Your task to perform on an android device: turn smart compose on in the gmail app Image 0: 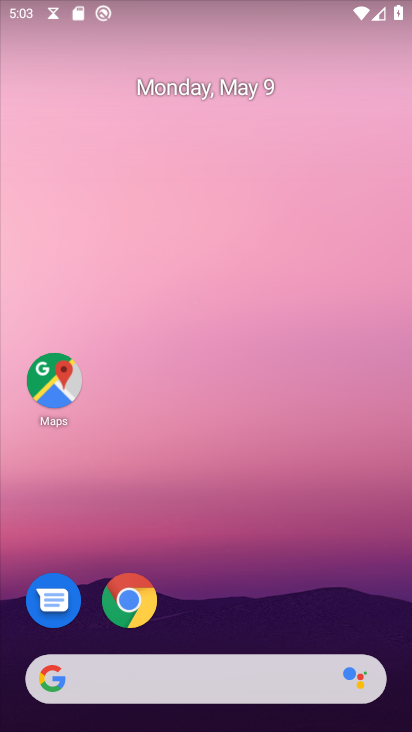
Step 0: drag from (283, 649) to (216, 0)
Your task to perform on an android device: turn smart compose on in the gmail app Image 1: 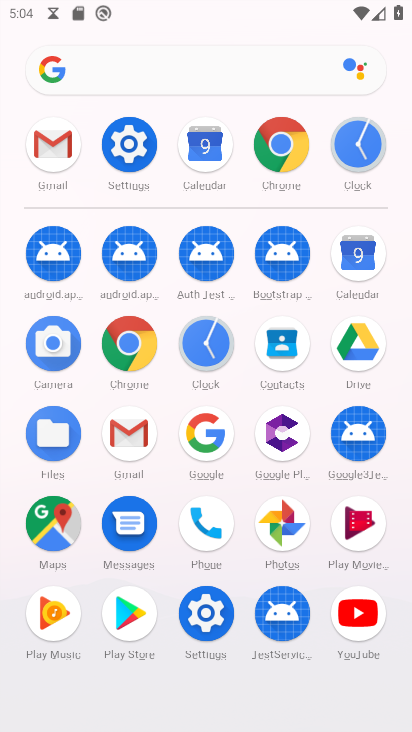
Step 1: click (117, 438)
Your task to perform on an android device: turn smart compose on in the gmail app Image 2: 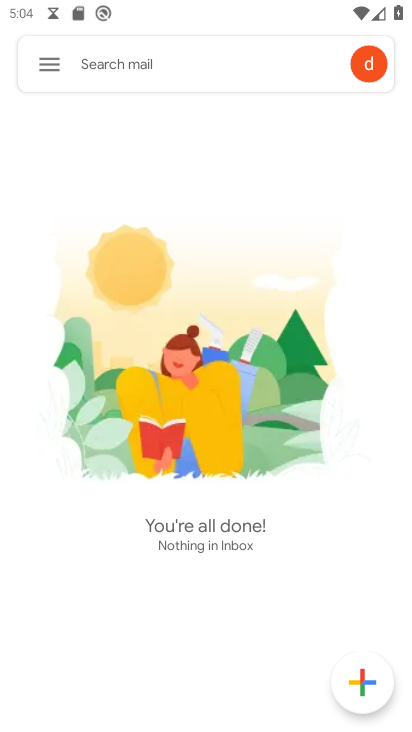
Step 2: click (51, 63)
Your task to perform on an android device: turn smart compose on in the gmail app Image 3: 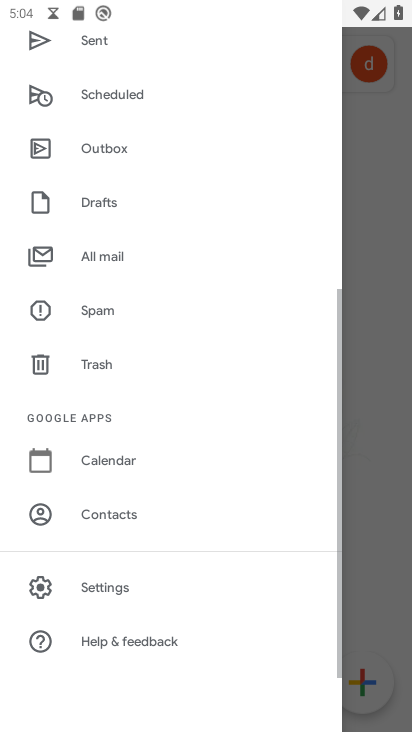
Step 3: click (125, 588)
Your task to perform on an android device: turn smart compose on in the gmail app Image 4: 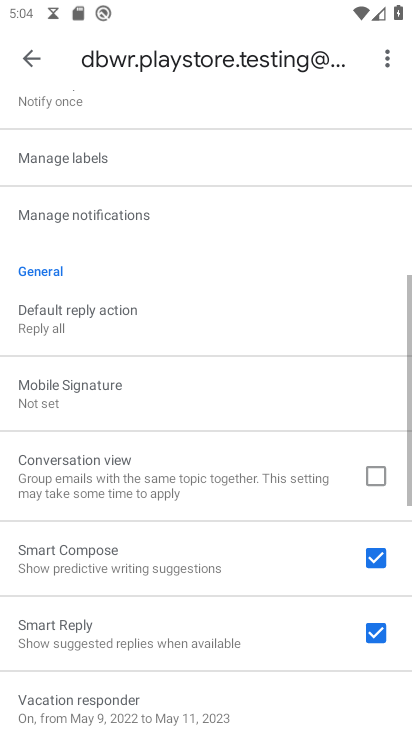
Step 4: task complete